Your task to perform on an android device: empty trash in the gmail app Image 0: 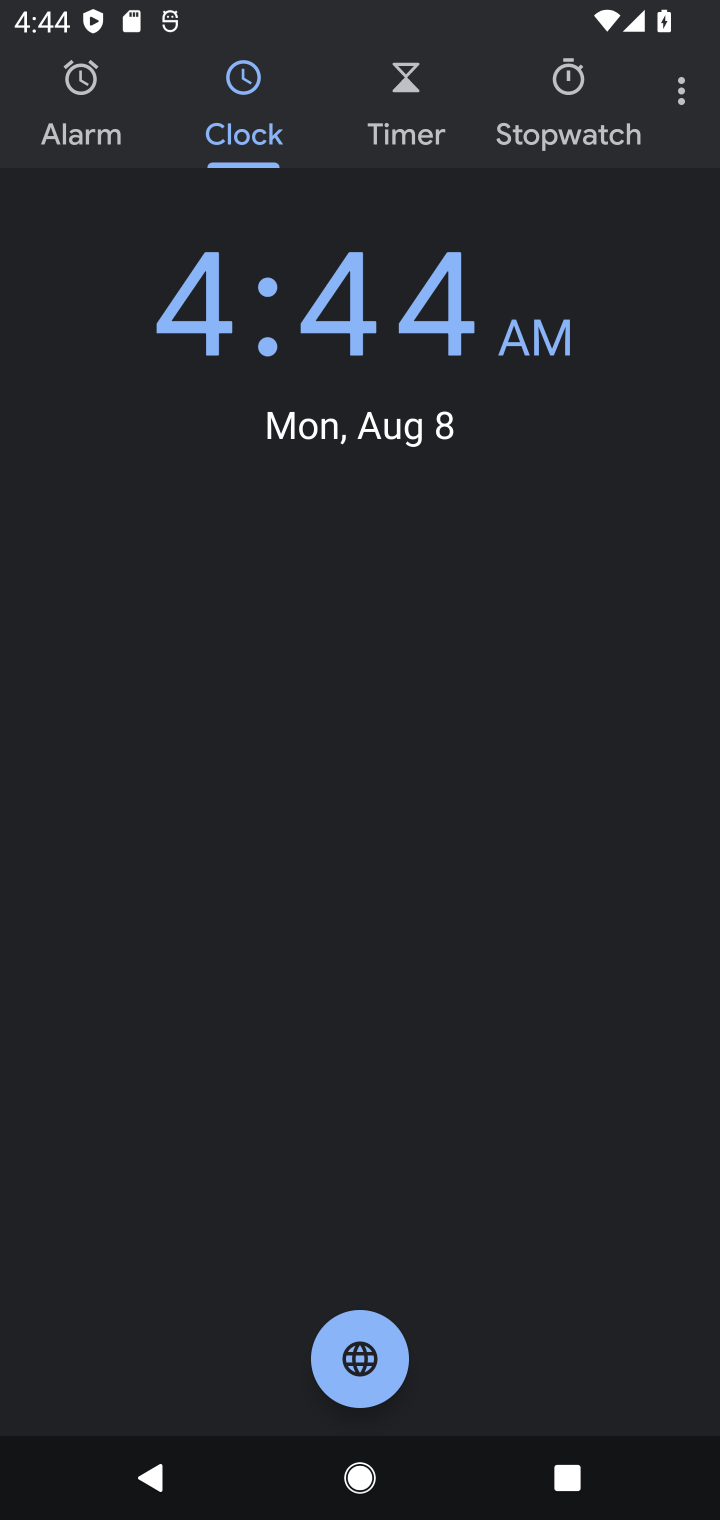
Step 0: press home button
Your task to perform on an android device: empty trash in the gmail app Image 1: 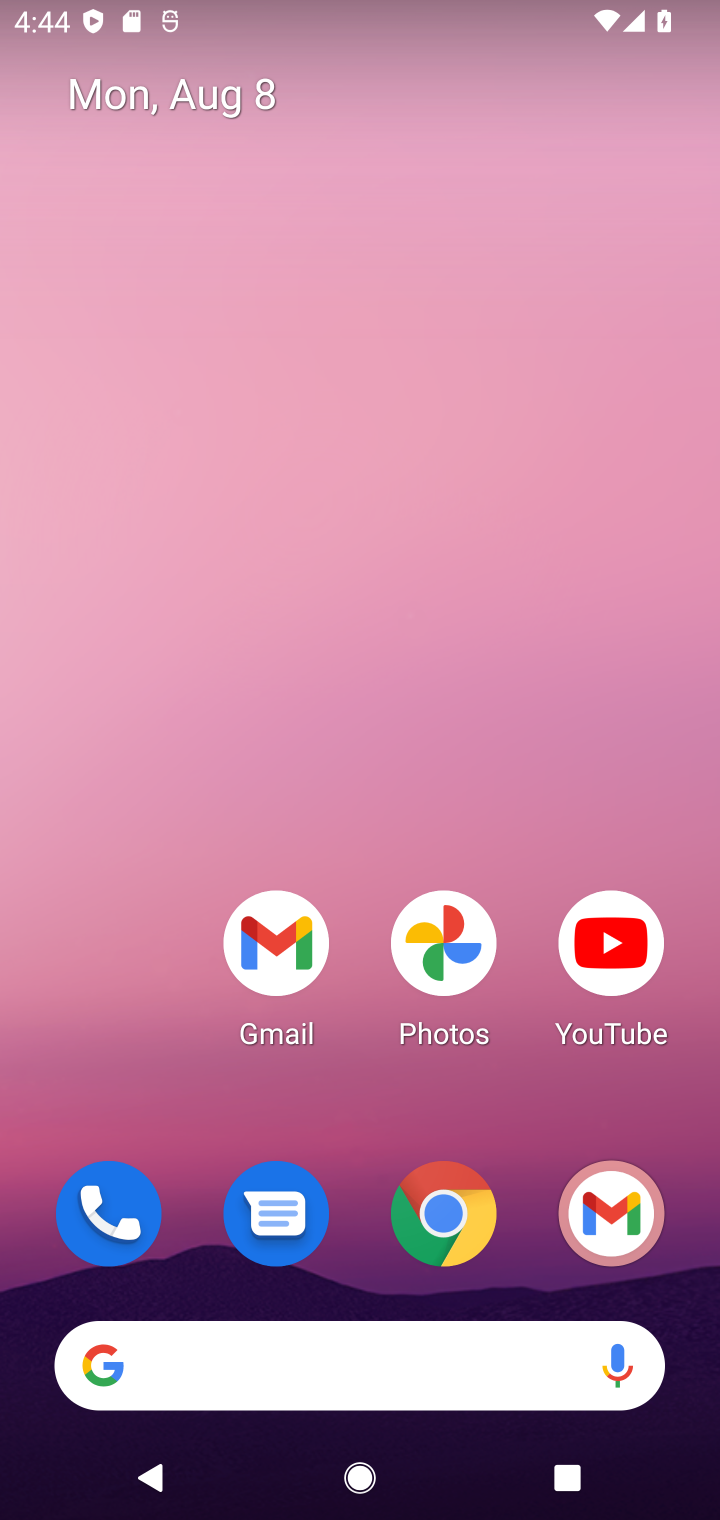
Step 1: click (279, 959)
Your task to perform on an android device: empty trash in the gmail app Image 2: 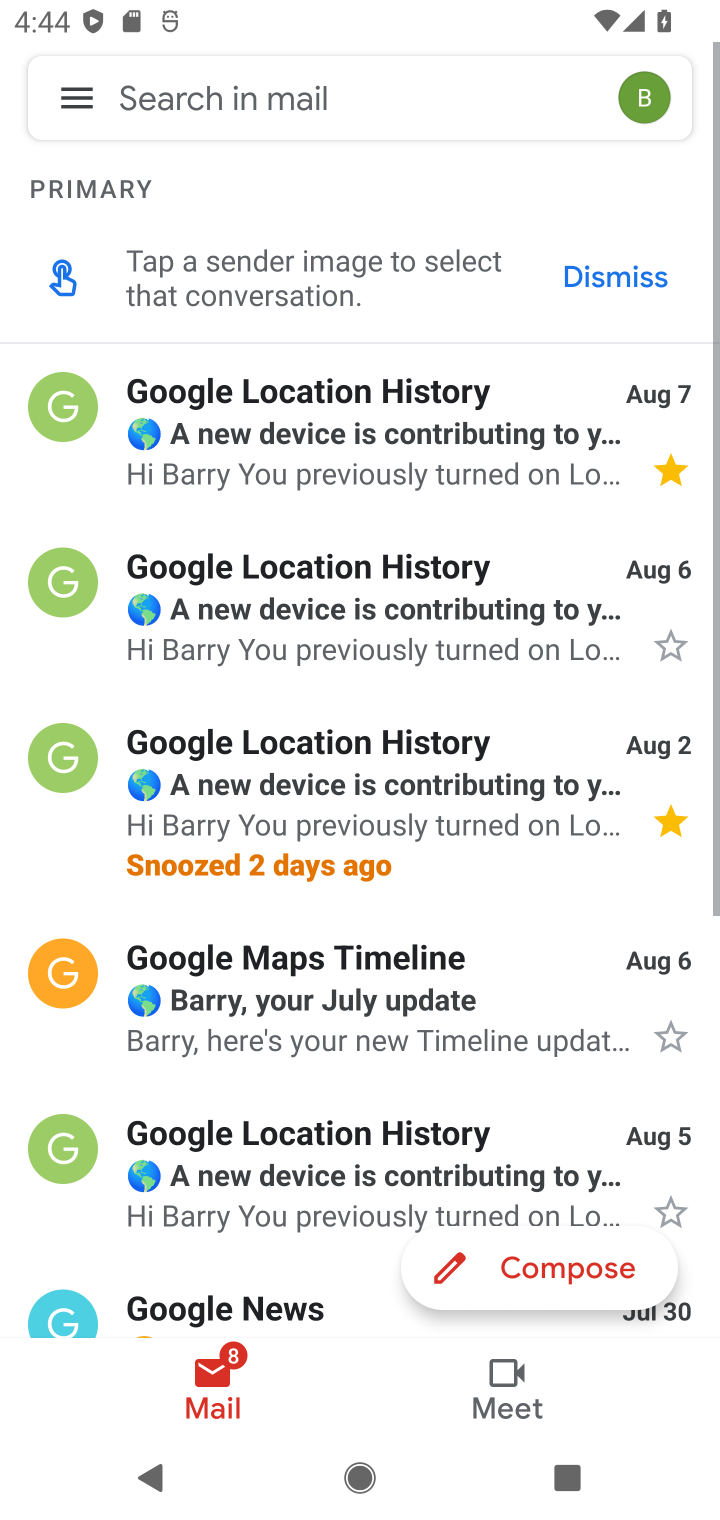
Step 2: click (88, 92)
Your task to perform on an android device: empty trash in the gmail app Image 3: 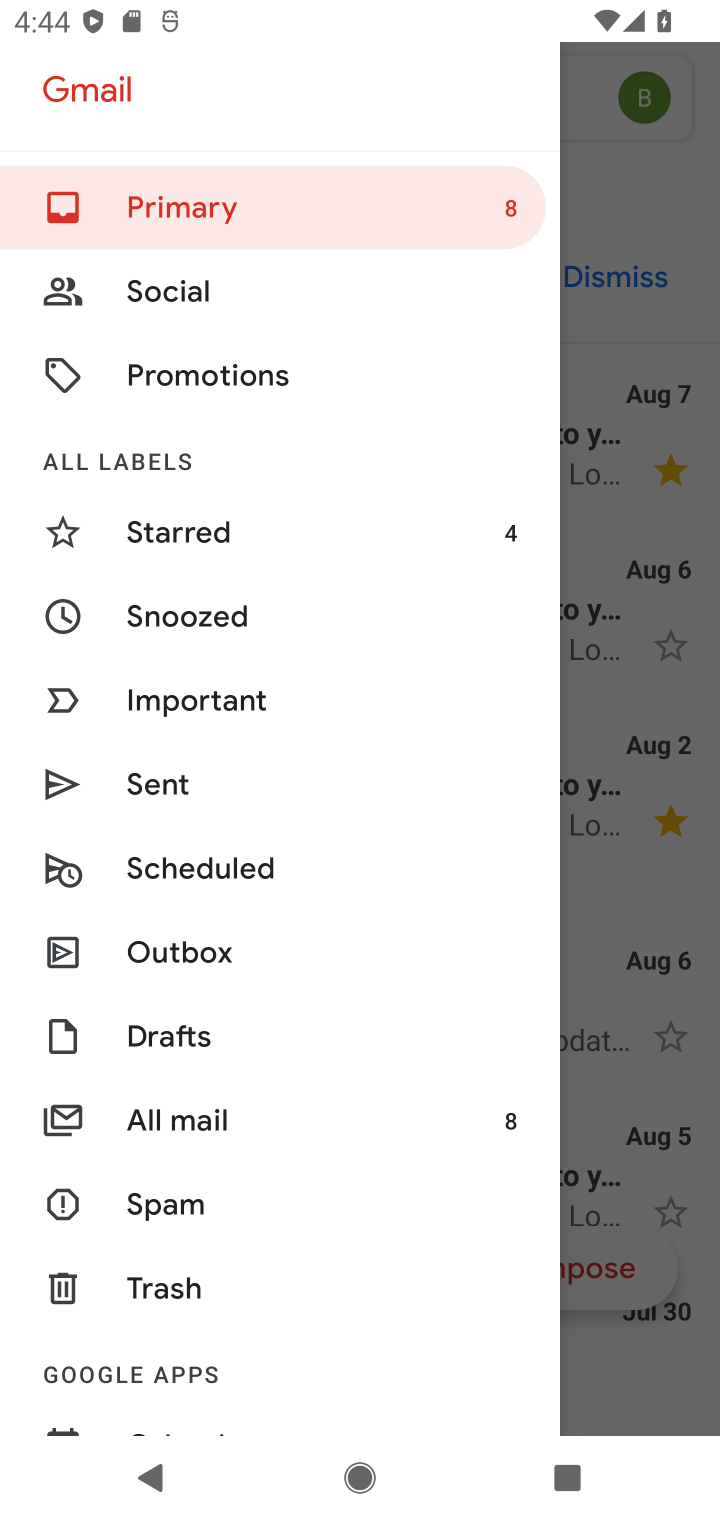
Step 3: click (186, 1271)
Your task to perform on an android device: empty trash in the gmail app Image 4: 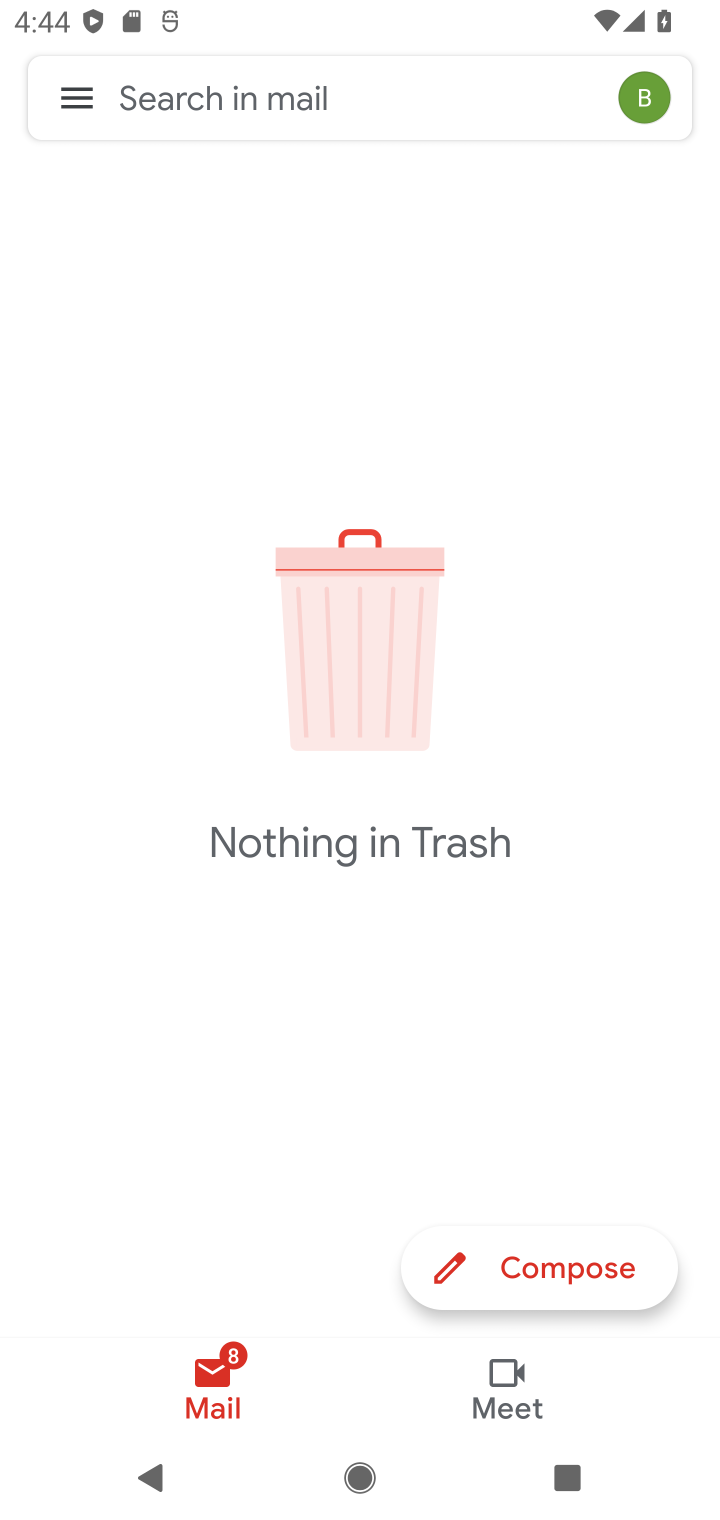
Step 4: task complete